Your task to perform on an android device: toggle wifi Image 0: 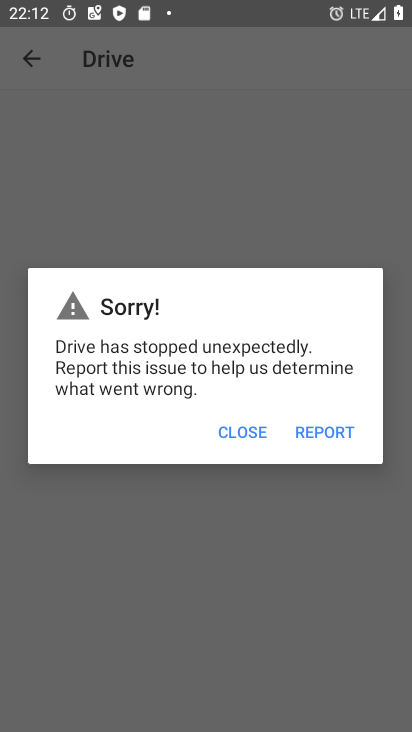
Step 0: press home button
Your task to perform on an android device: toggle wifi Image 1: 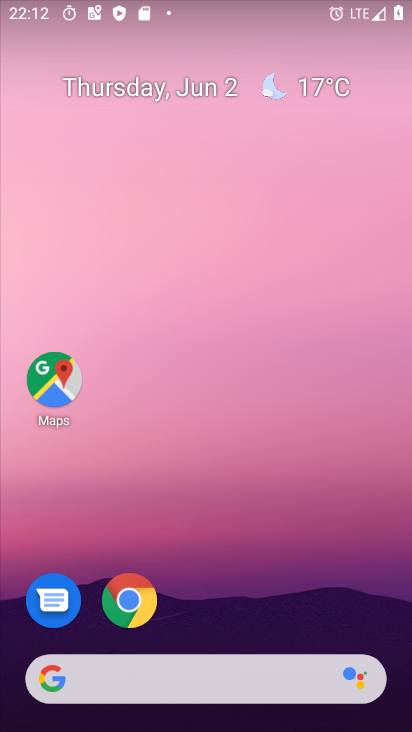
Step 1: drag from (353, 576) to (359, 131)
Your task to perform on an android device: toggle wifi Image 2: 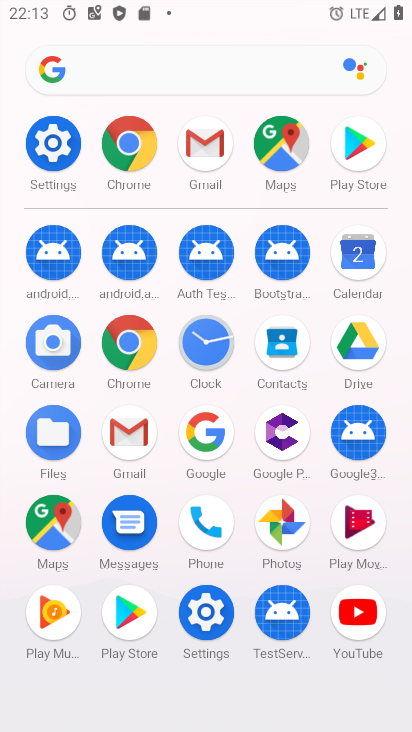
Step 2: click (210, 604)
Your task to perform on an android device: toggle wifi Image 3: 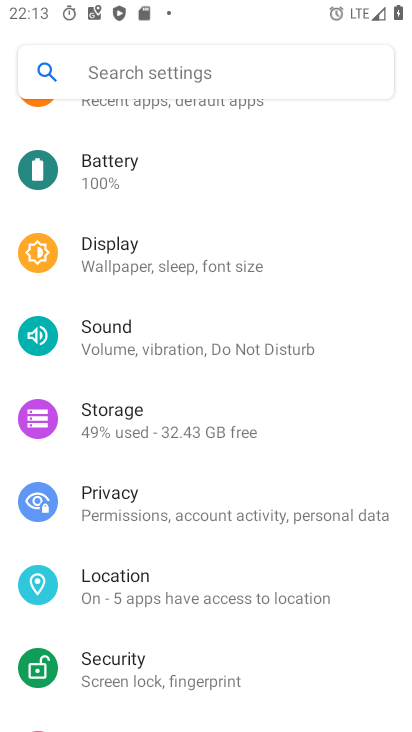
Step 3: drag from (353, 350) to (361, 440)
Your task to perform on an android device: toggle wifi Image 4: 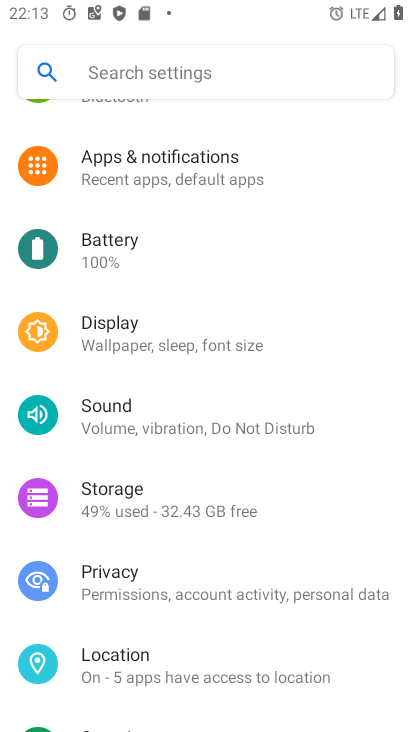
Step 4: drag from (360, 320) to (361, 438)
Your task to perform on an android device: toggle wifi Image 5: 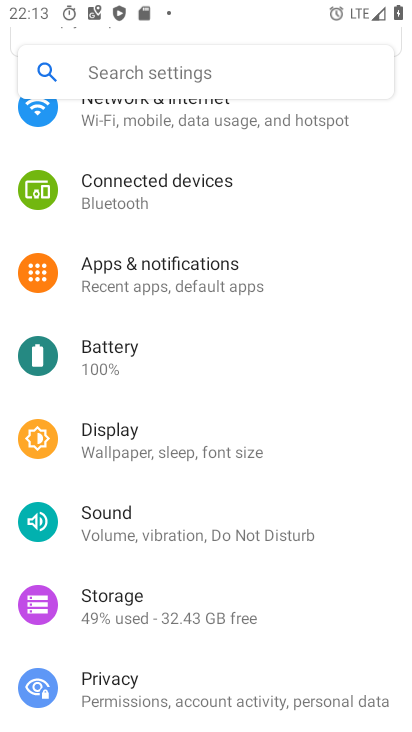
Step 5: drag from (350, 314) to (347, 437)
Your task to perform on an android device: toggle wifi Image 6: 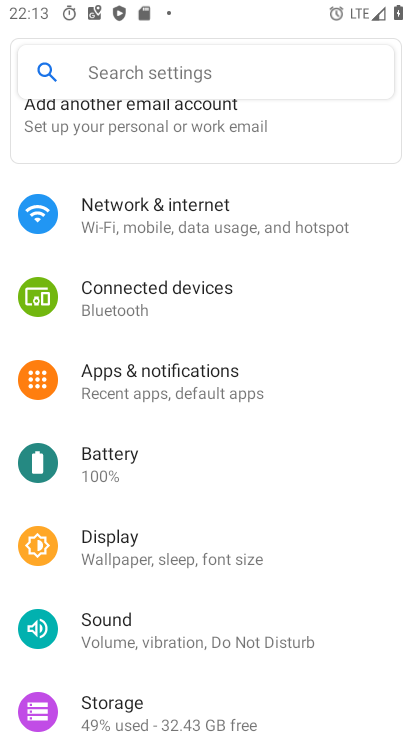
Step 6: drag from (351, 320) to (356, 472)
Your task to perform on an android device: toggle wifi Image 7: 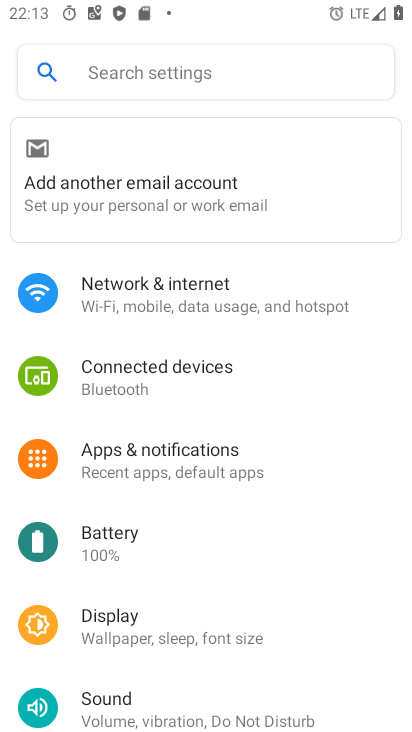
Step 7: click (220, 298)
Your task to perform on an android device: toggle wifi Image 8: 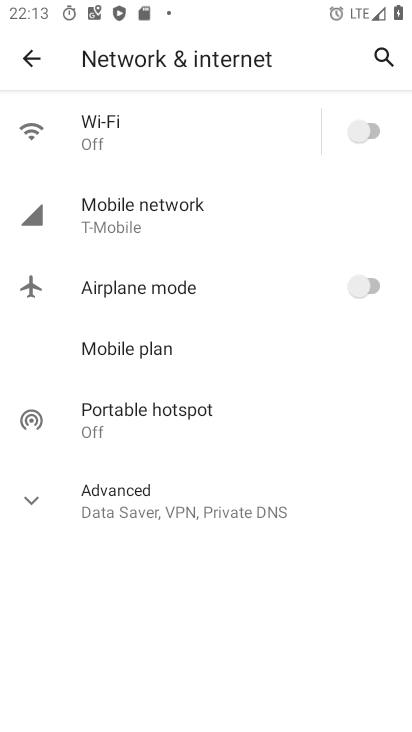
Step 8: click (371, 133)
Your task to perform on an android device: toggle wifi Image 9: 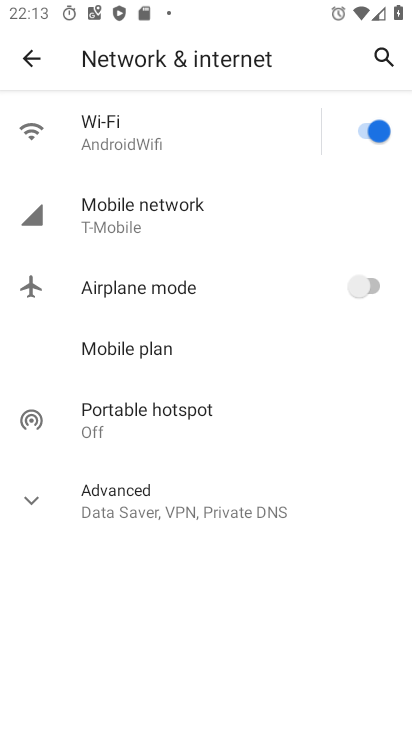
Step 9: task complete